Your task to perform on an android device: toggle javascript in the chrome app Image 0: 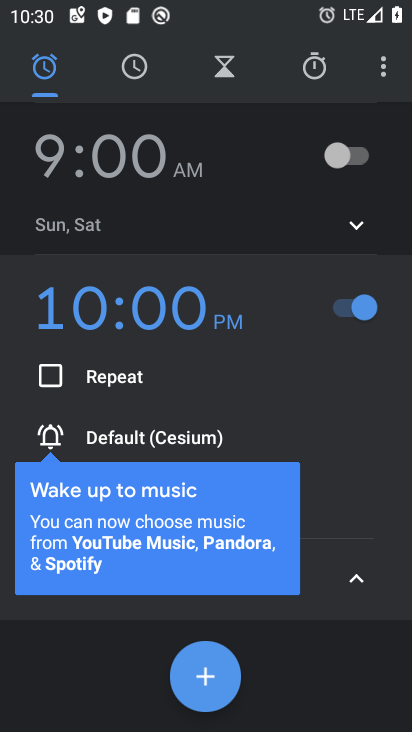
Step 0: press home button
Your task to perform on an android device: toggle javascript in the chrome app Image 1: 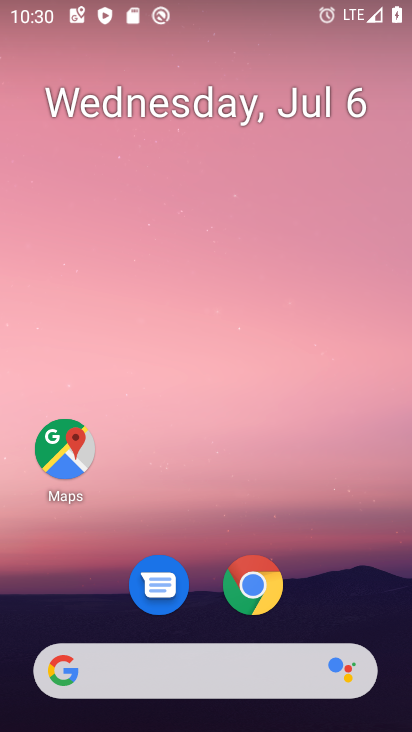
Step 1: drag from (207, 520) to (212, 28)
Your task to perform on an android device: toggle javascript in the chrome app Image 2: 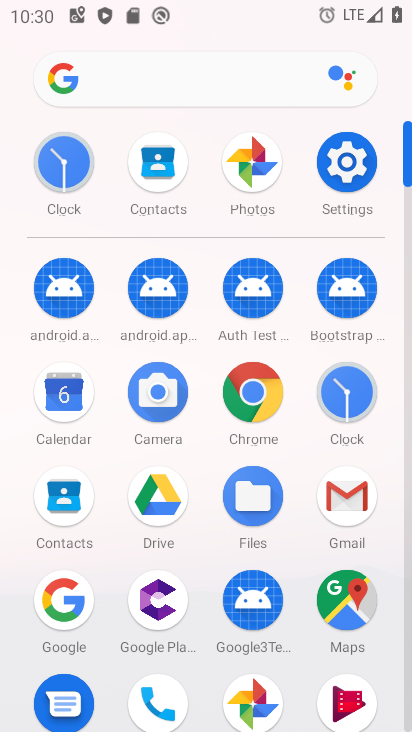
Step 2: click (271, 389)
Your task to perform on an android device: toggle javascript in the chrome app Image 3: 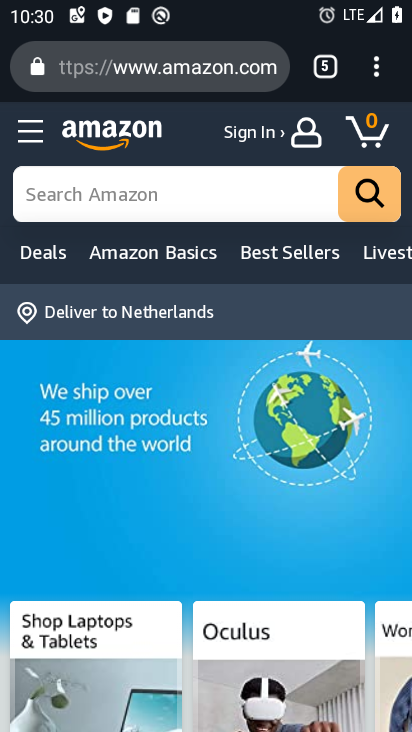
Step 3: click (379, 71)
Your task to perform on an android device: toggle javascript in the chrome app Image 4: 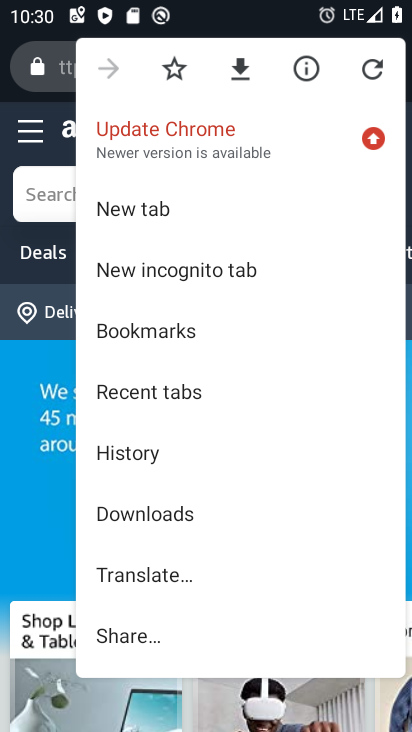
Step 4: drag from (226, 498) to (267, 104)
Your task to perform on an android device: toggle javascript in the chrome app Image 5: 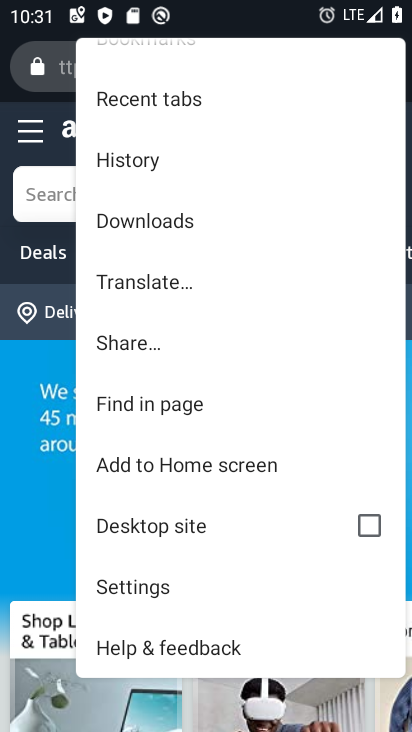
Step 5: click (170, 585)
Your task to perform on an android device: toggle javascript in the chrome app Image 6: 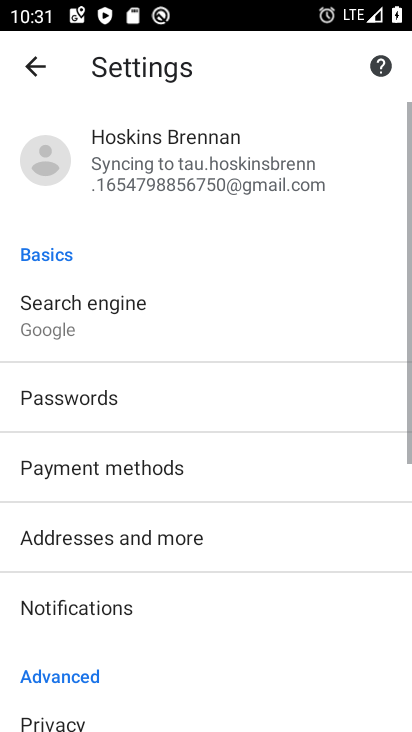
Step 6: drag from (233, 512) to (290, 126)
Your task to perform on an android device: toggle javascript in the chrome app Image 7: 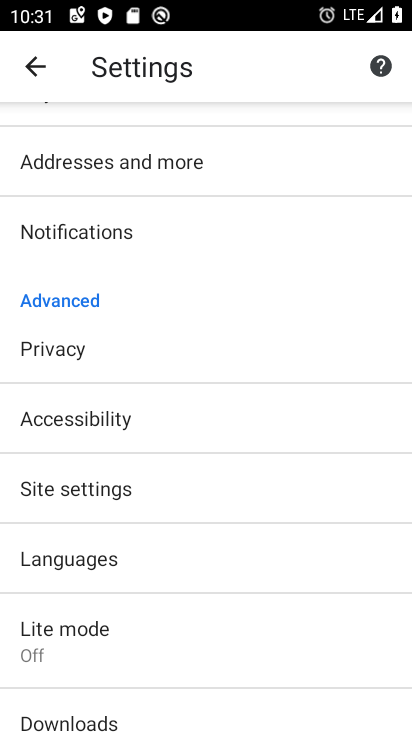
Step 7: click (186, 495)
Your task to perform on an android device: toggle javascript in the chrome app Image 8: 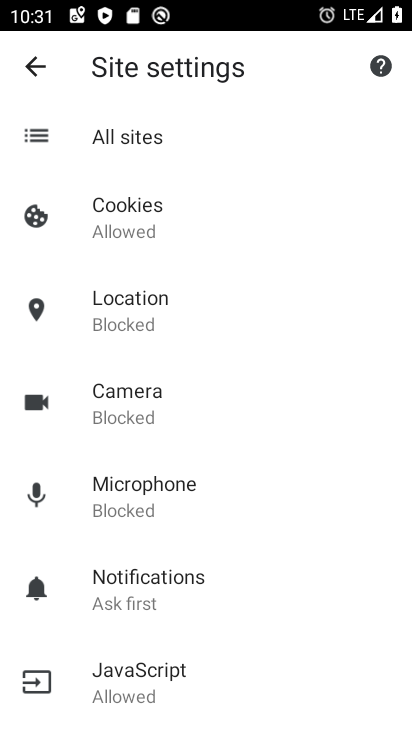
Step 8: drag from (222, 531) to (261, 266)
Your task to perform on an android device: toggle javascript in the chrome app Image 9: 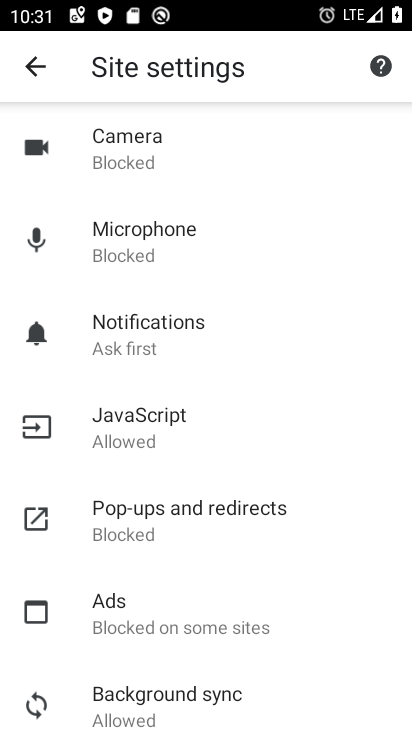
Step 9: click (198, 429)
Your task to perform on an android device: toggle javascript in the chrome app Image 10: 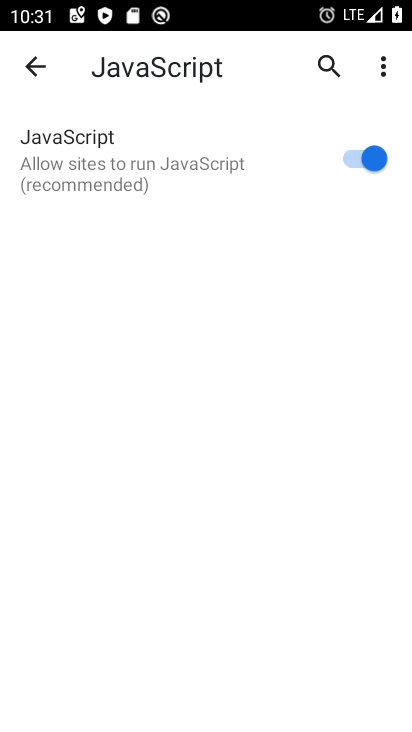
Step 10: click (360, 154)
Your task to perform on an android device: toggle javascript in the chrome app Image 11: 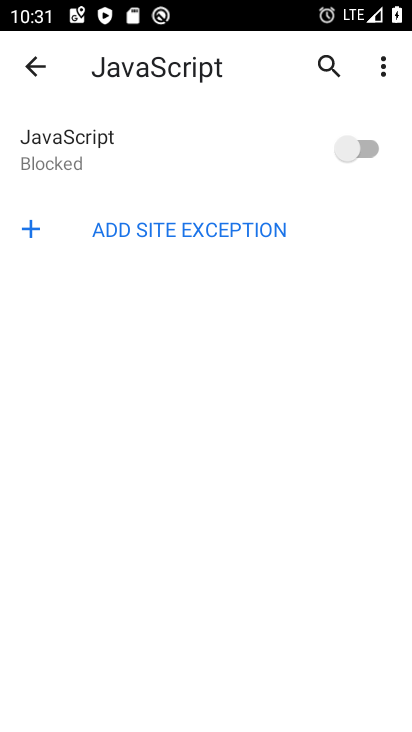
Step 11: task complete